Your task to perform on an android device: Show me recent news Image 0: 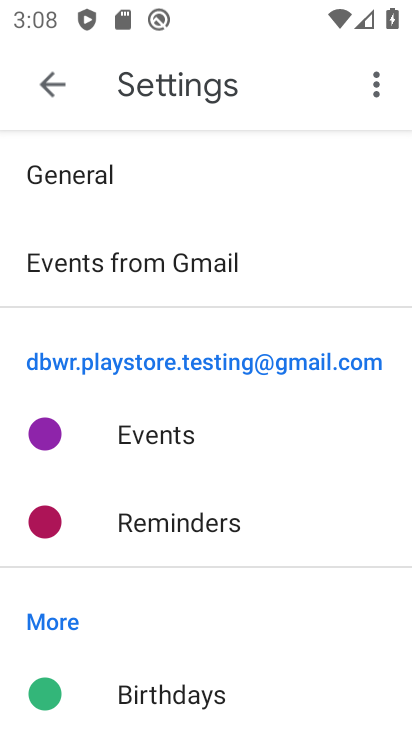
Step 0: press home button
Your task to perform on an android device: Show me recent news Image 1: 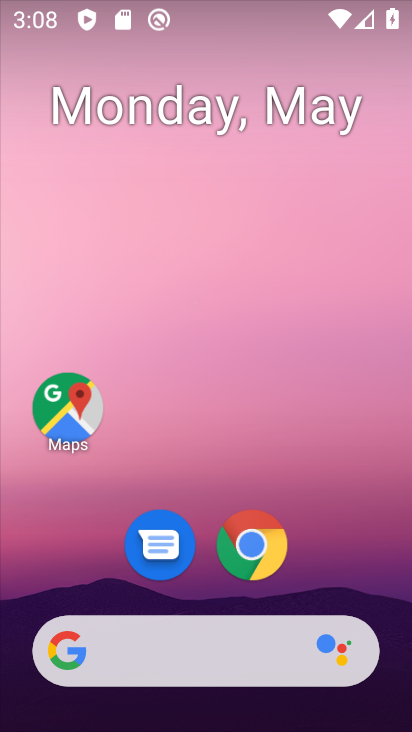
Step 1: click (265, 570)
Your task to perform on an android device: Show me recent news Image 2: 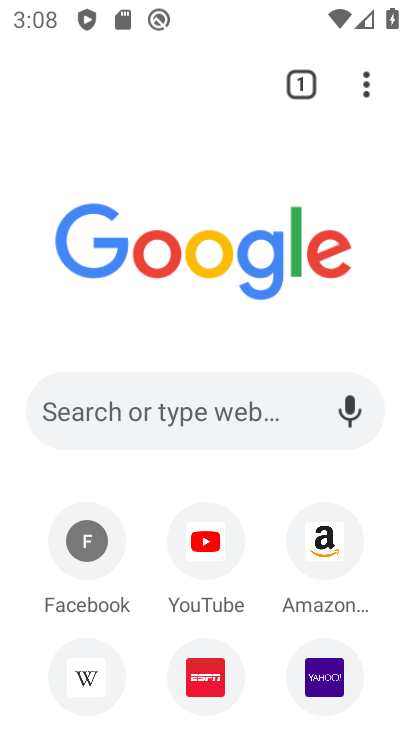
Step 2: click (242, 408)
Your task to perform on an android device: Show me recent news Image 3: 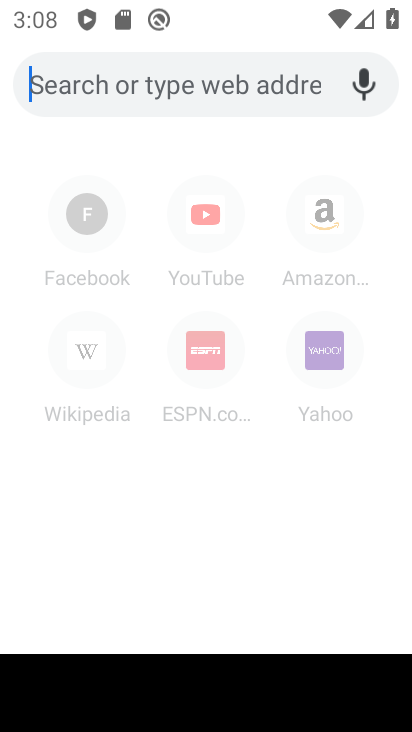
Step 3: type "recent news"
Your task to perform on an android device: Show me recent news Image 4: 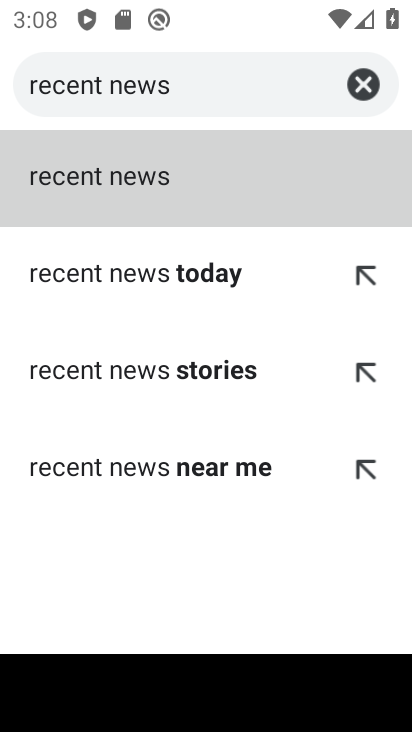
Step 4: click (136, 186)
Your task to perform on an android device: Show me recent news Image 5: 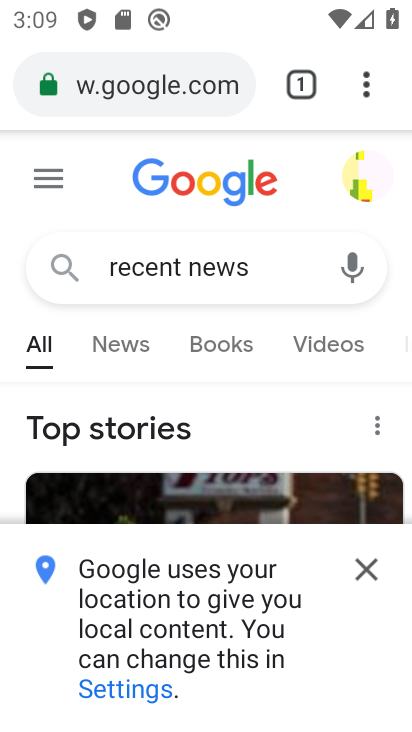
Step 5: click (370, 560)
Your task to perform on an android device: Show me recent news Image 6: 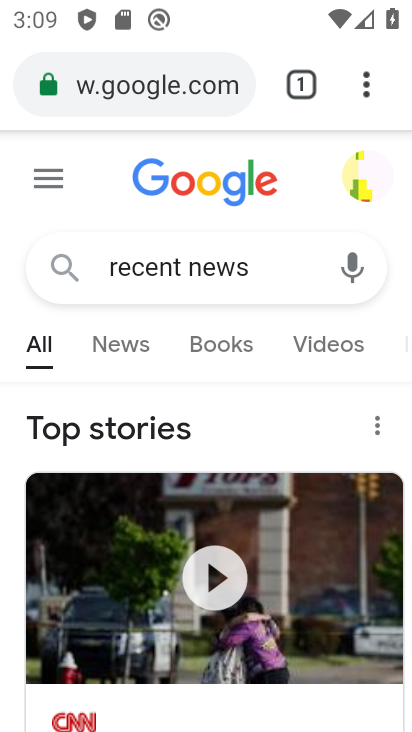
Step 6: task complete